Your task to perform on an android device: turn notification dots off Image 0: 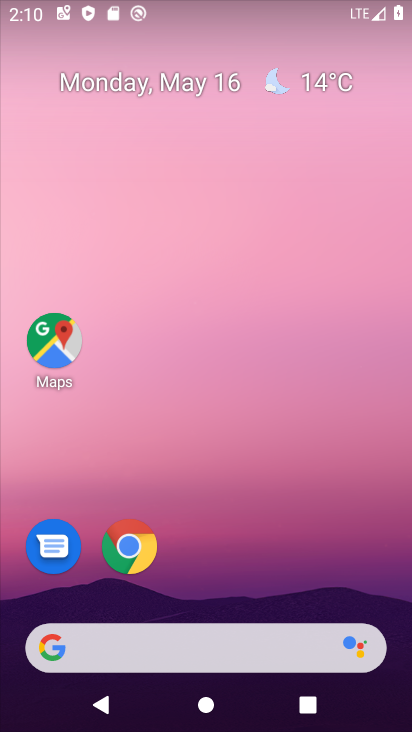
Step 0: drag from (255, 662) to (207, 281)
Your task to perform on an android device: turn notification dots off Image 1: 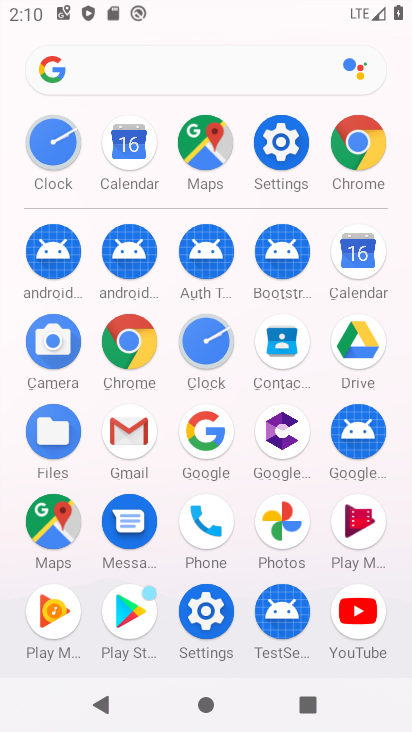
Step 1: click (273, 146)
Your task to perform on an android device: turn notification dots off Image 2: 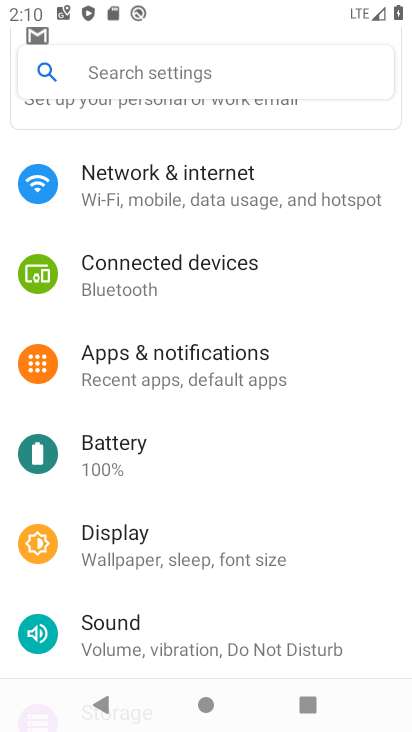
Step 2: click (140, 66)
Your task to perform on an android device: turn notification dots off Image 3: 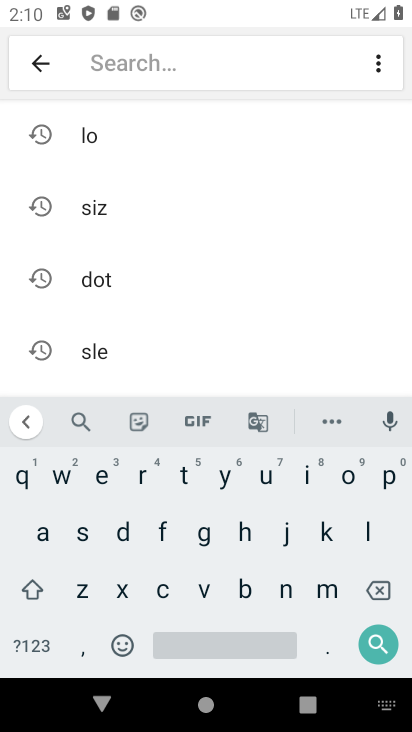
Step 3: click (136, 289)
Your task to perform on an android device: turn notification dots off Image 4: 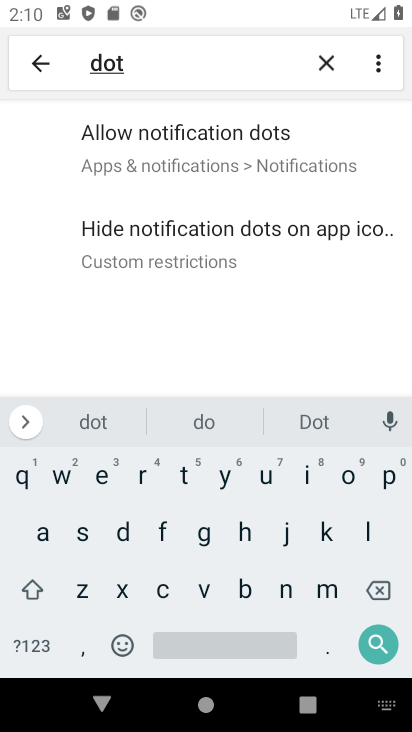
Step 4: click (176, 135)
Your task to perform on an android device: turn notification dots off Image 5: 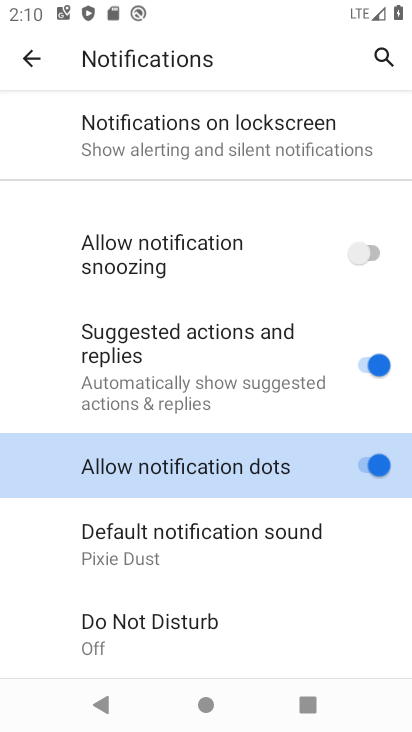
Step 5: click (286, 462)
Your task to perform on an android device: turn notification dots off Image 6: 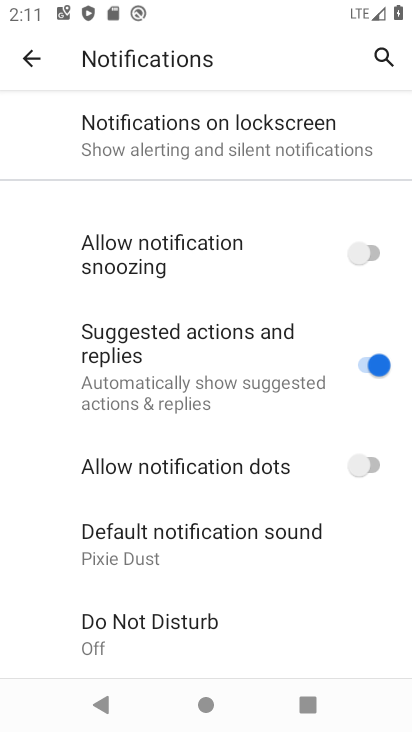
Step 6: task complete